Your task to perform on an android device: Search for hotels in Paris Image 0: 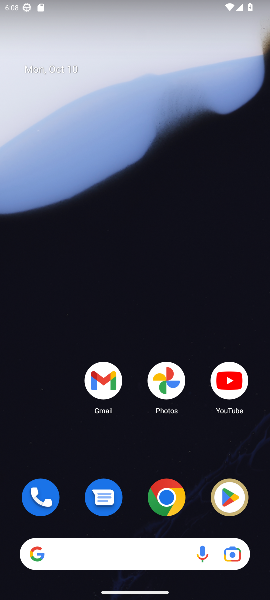
Step 0: drag from (139, 453) to (152, 222)
Your task to perform on an android device: Search for hotels in Paris Image 1: 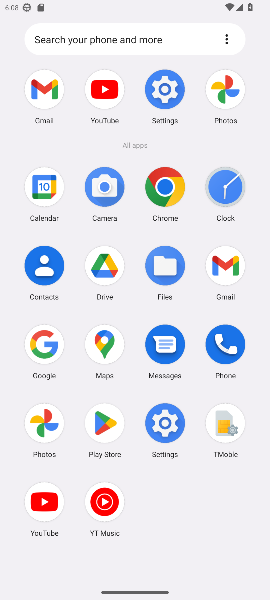
Step 1: click (39, 350)
Your task to perform on an android device: Search for hotels in Paris Image 2: 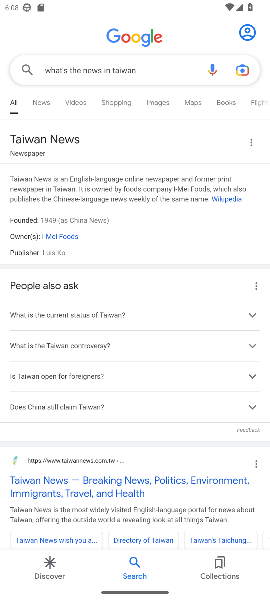
Step 2: click (161, 67)
Your task to perform on an android device: Search for hotels in Paris Image 3: 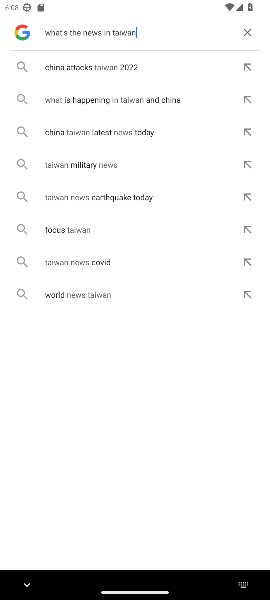
Step 3: click (247, 31)
Your task to perform on an android device: Search for hotels in Paris Image 4: 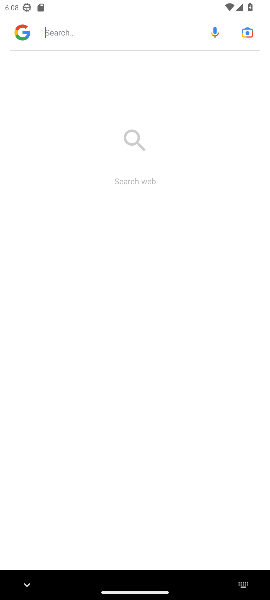
Step 4: click (116, 34)
Your task to perform on an android device: Search for hotels in Paris Image 5: 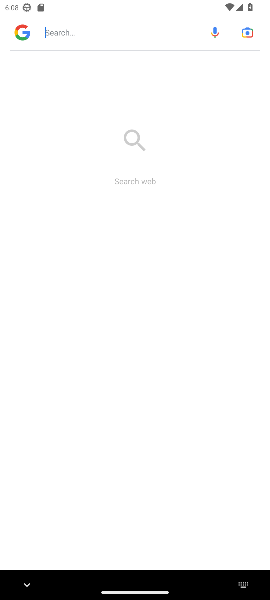
Step 5: type "Search for hotels in Paris "
Your task to perform on an android device: Search for hotels in Paris Image 6: 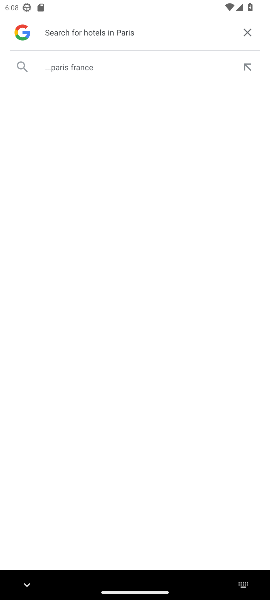
Step 6: click (69, 59)
Your task to perform on an android device: Search for hotels in Paris Image 7: 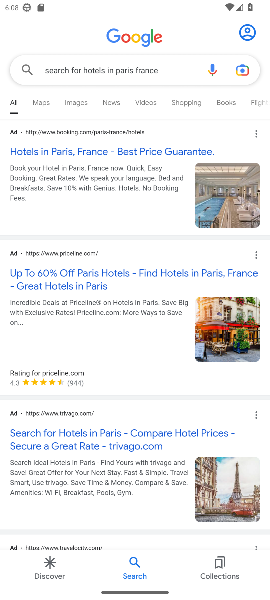
Step 7: click (116, 141)
Your task to perform on an android device: Search for hotels in Paris Image 8: 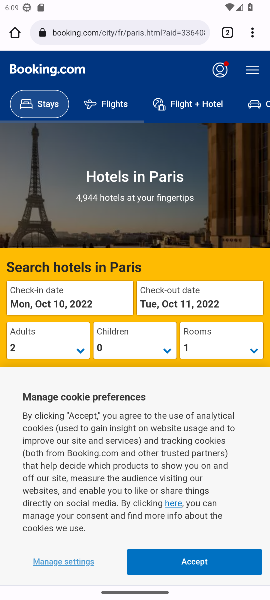
Step 8: click (168, 563)
Your task to perform on an android device: Search for hotels in Paris Image 9: 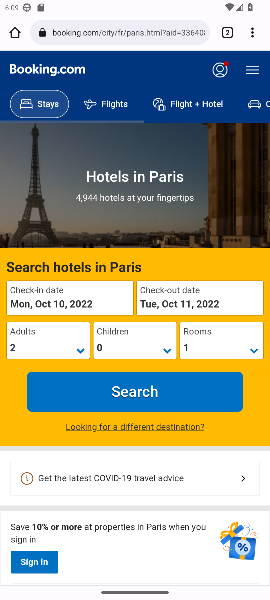
Step 9: click (134, 388)
Your task to perform on an android device: Search for hotels in Paris Image 10: 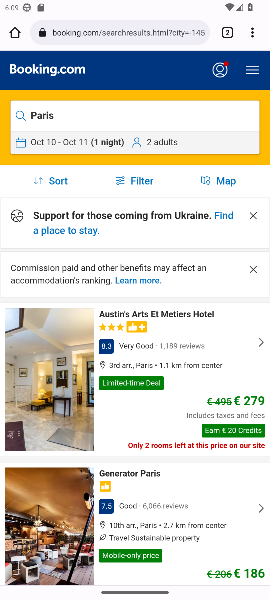
Step 10: task complete